Your task to perform on an android device: Go to internet settings Image 0: 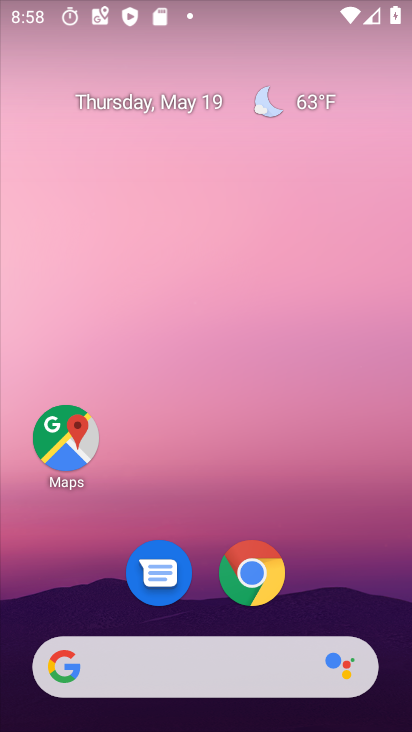
Step 0: drag from (342, 611) to (276, 0)
Your task to perform on an android device: Go to internet settings Image 1: 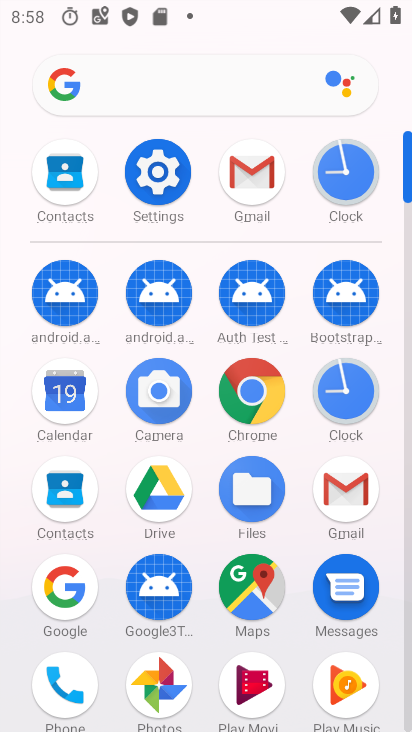
Step 1: click (155, 171)
Your task to perform on an android device: Go to internet settings Image 2: 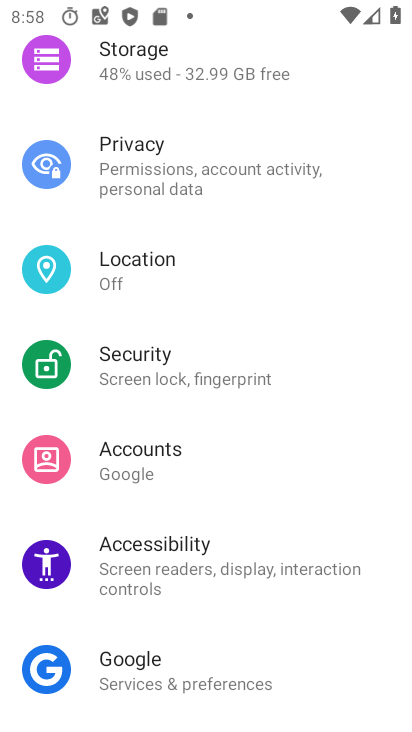
Step 2: drag from (338, 113) to (298, 677)
Your task to perform on an android device: Go to internet settings Image 3: 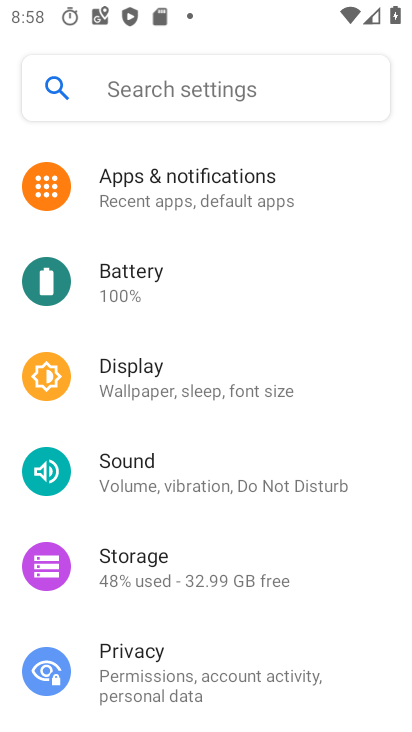
Step 3: drag from (202, 260) to (222, 611)
Your task to perform on an android device: Go to internet settings Image 4: 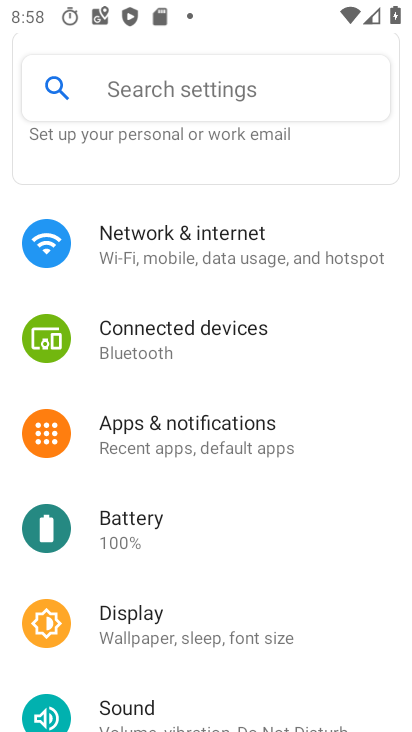
Step 4: click (153, 259)
Your task to perform on an android device: Go to internet settings Image 5: 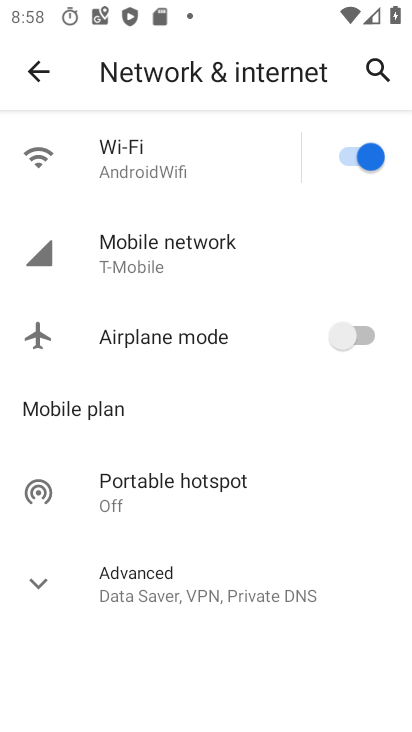
Step 5: task complete